Your task to perform on an android device: turn off picture-in-picture Image 0: 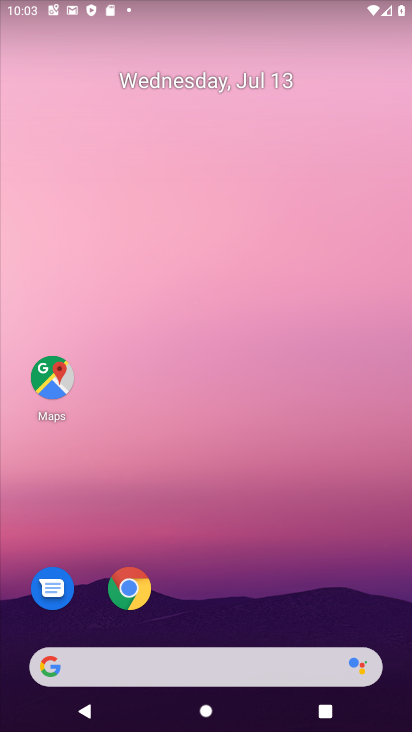
Step 0: drag from (239, 630) to (265, 42)
Your task to perform on an android device: turn off picture-in-picture Image 1: 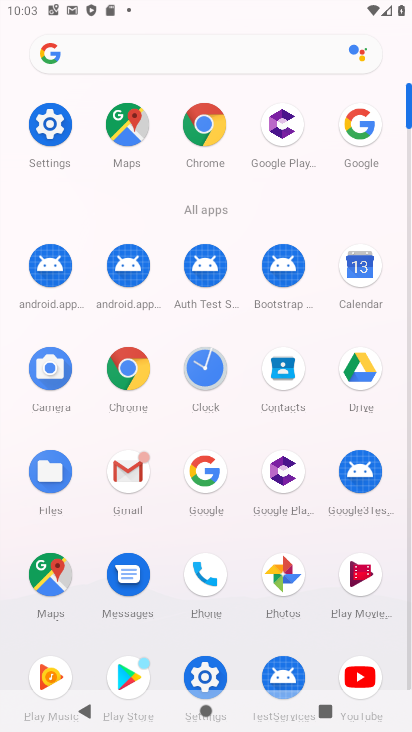
Step 1: click (200, 665)
Your task to perform on an android device: turn off picture-in-picture Image 2: 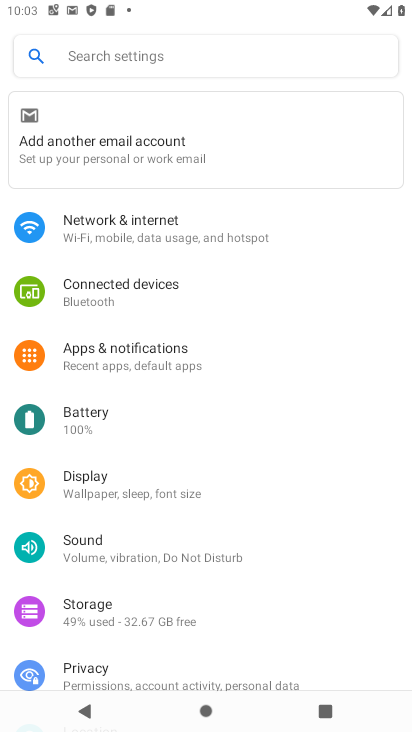
Step 2: click (129, 349)
Your task to perform on an android device: turn off picture-in-picture Image 3: 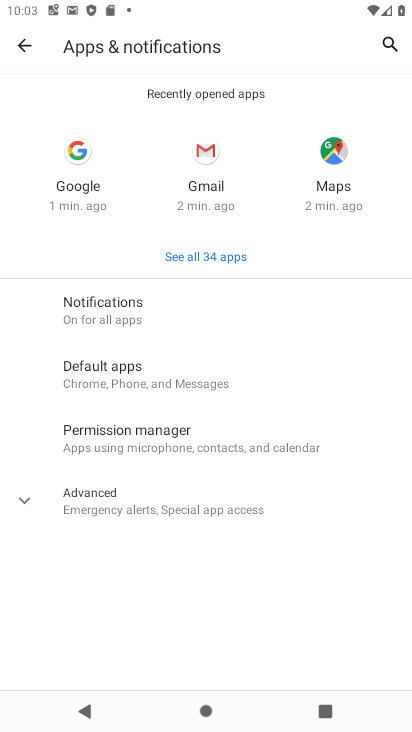
Step 3: click (127, 505)
Your task to perform on an android device: turn off picture-in-picture Image 4: 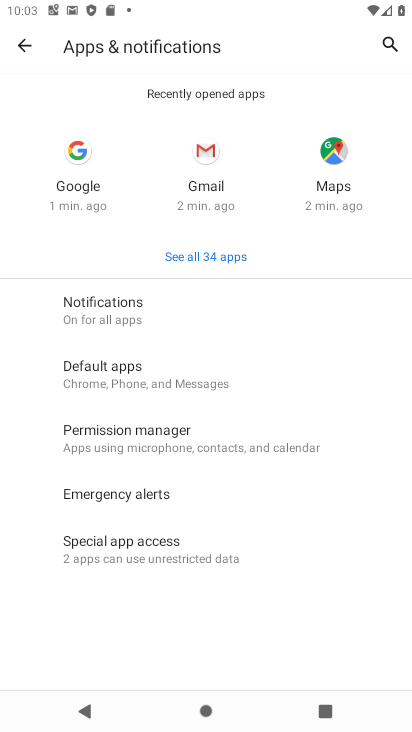
Step 4: click (160, 557)
Your task to perform on an android device: turn off picture-in-picture Image 5: 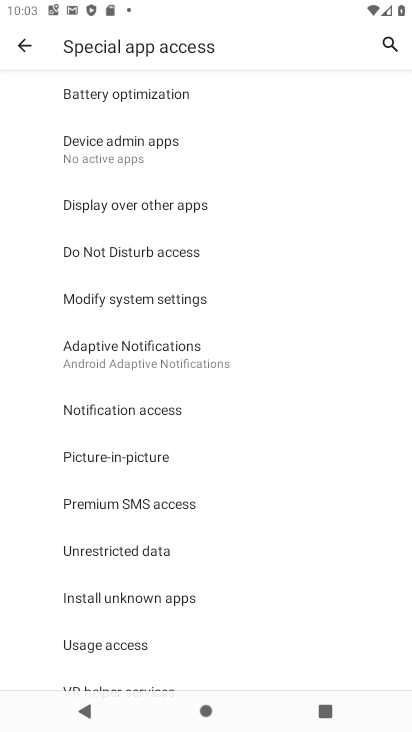
Step 5: click (101, 448)
Your task to perform on an android device: turn off picture-in-picture Image 6: 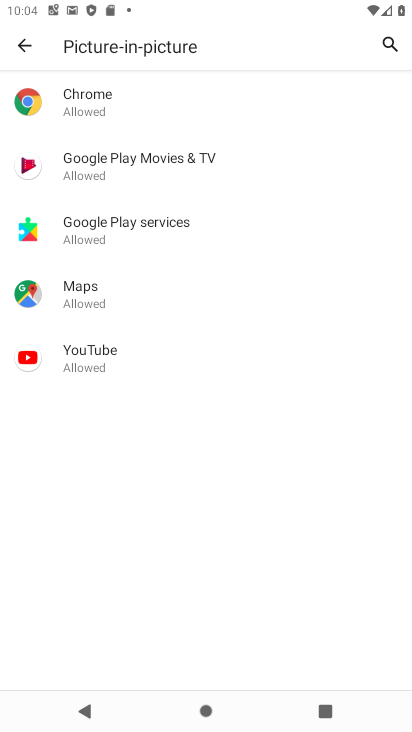
Step 6: task complete